Your task to perform on an android device: Open the Play Movies app and select the watchlist tab. Image 0: 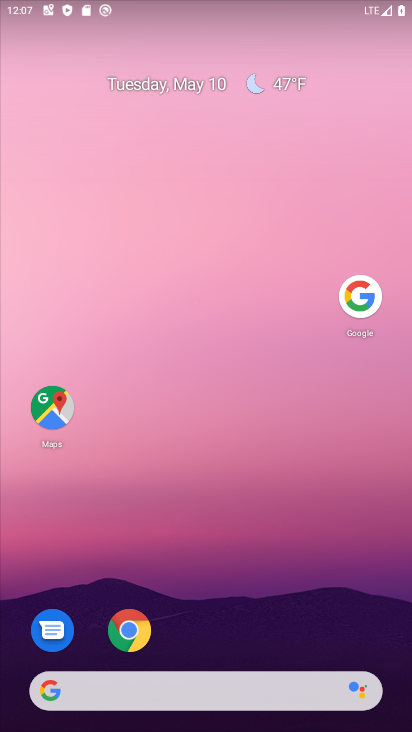
Step 0: press home button
Your task to perform on an android device: Open the Play Movies app and select the watchlist tab. Image 1: 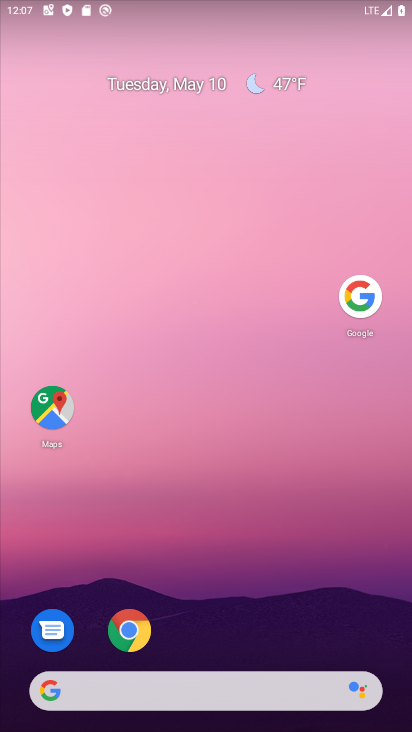
Step 1: drag from (130, 683) to (270, 225)
Your task to perform on an android device: Open the Play Movies app and select the watchlist tab. Image 2: 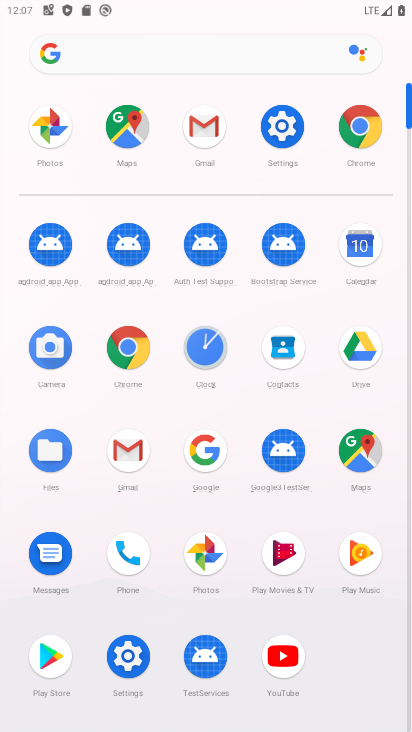
Step 2: click (287, 556)
Your task to perform on an android device: Open the Play Movies app and select the watchlist tab. Image 3: 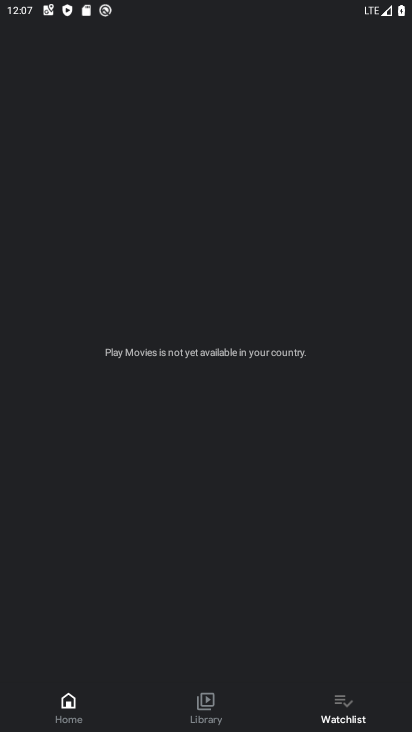
Step 3: click (344, 714)
Your task to perform on an android device: Open the Play Movies app and select the watchlist tab. Image 4: 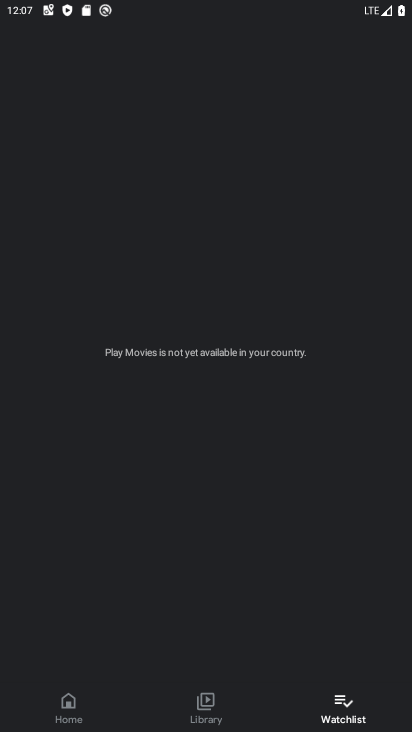
Step 4: task complete